Your task to perform on an android device: Open Google Chrome and click the shortcut for Amazon.com Image 0: 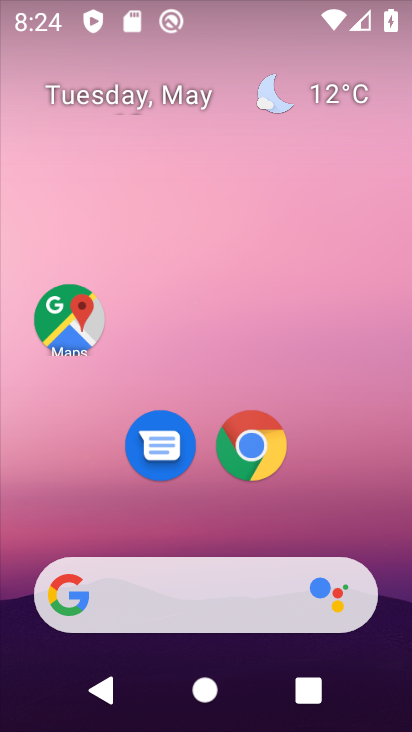
Step 0: click (262, 476)
Your task to perform on an android device: Open Google Chrome and click the shortcut for Amazon.com Image 1: 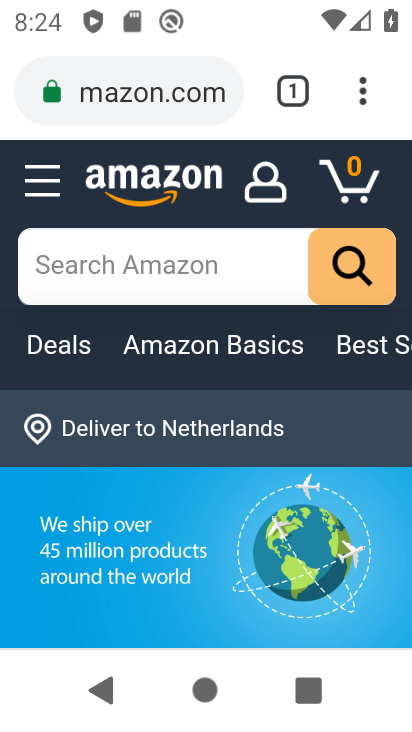
Step 1: click (294, 84)
Your task to perform on an android device: Open Google Chrome and click the shortcut for Amazon.com Image 2: 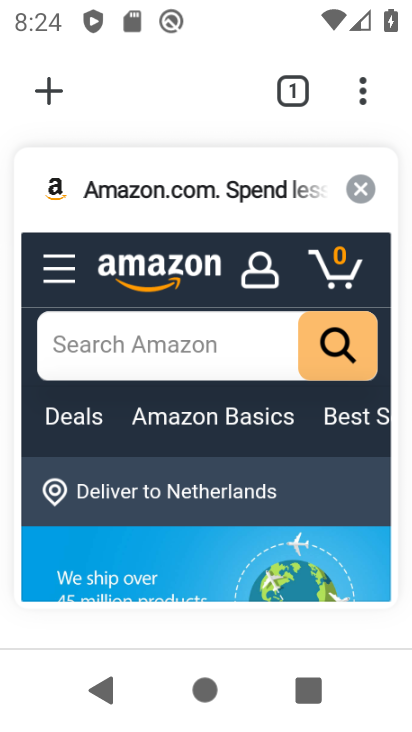
Step 2: click (39, 87)
Your task to perform on an android device: Open Google Chrome and click the shortcut for Amazon.com Image 3: 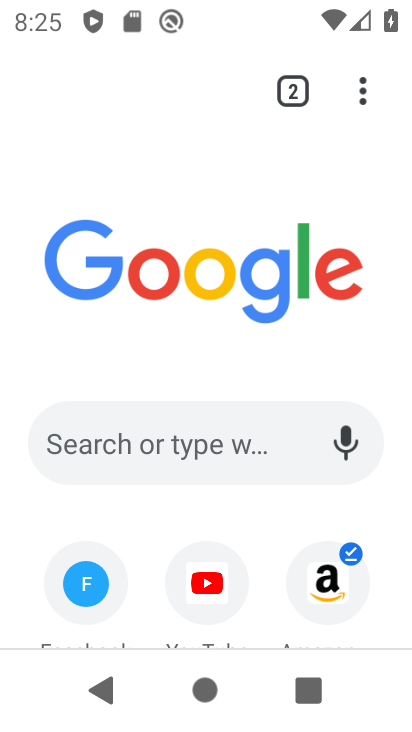
Step 3: click (333, 591)
Your task to perform on an android device: Open Google Chrome and click the shortcut for Amazon.com Image 4: 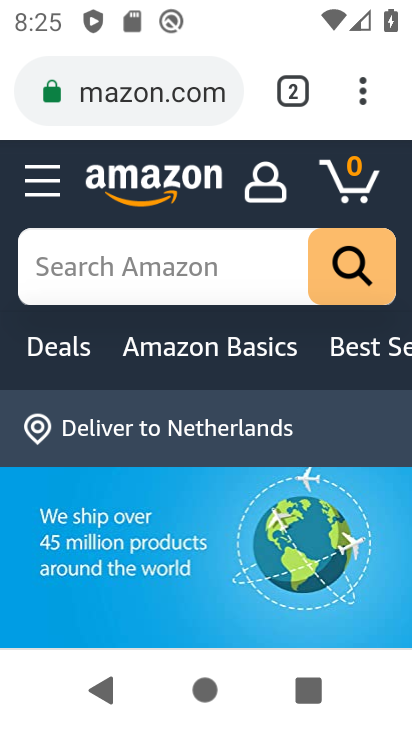
Step 4: task complete